Your task to perform on an android device: turn pop-ups off in chrome Image 0: 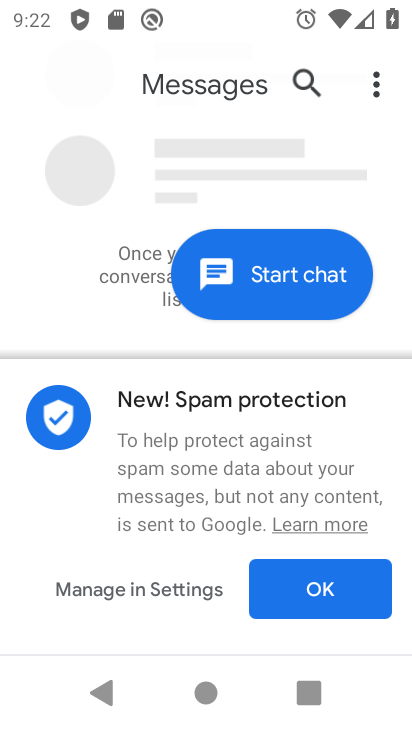
Step 0: press home button
Your task to perform on an android device: turn pop-ups off in chrome Image 1: 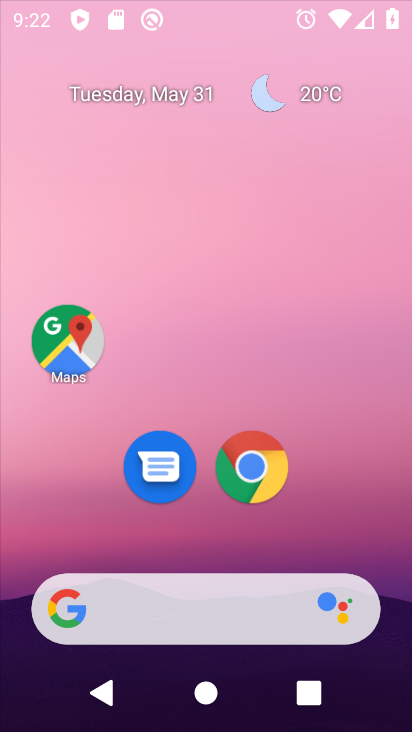
Step 1: drag from (206, 589) to (224, 61)
Your task to perform on an android device: turn pop-ups off in chrome Image 2: 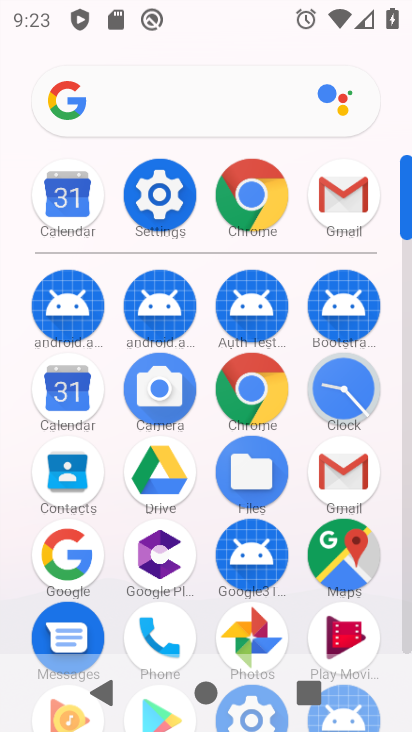
Step 2: click (248, 194)
Your task to perform on an android device: turn pop-ups off in chrome Image 3: 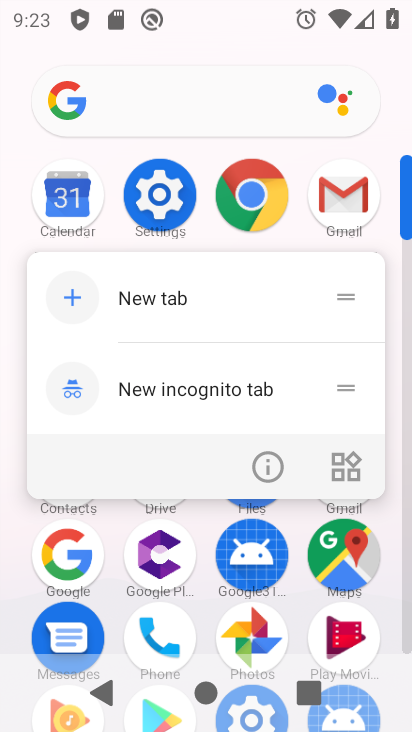
Step 3: click (266, 458)
Your task to perform on an android device: turn pop-ups off in chrome Image 4: 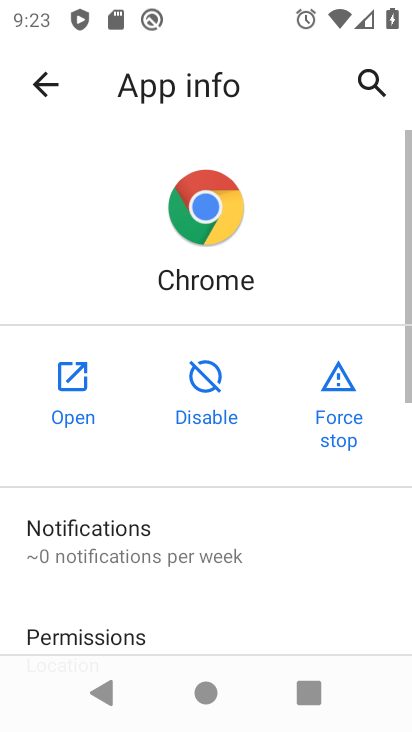
Step 4: click (77, 386)
Your task to perform on an android device: turn pop-ups off in chrome Image 5: 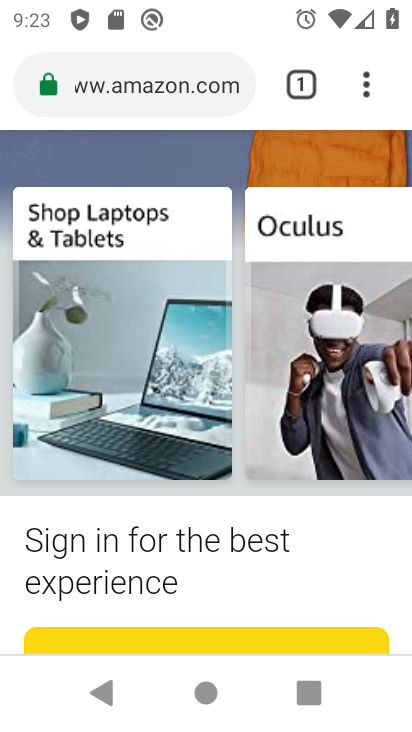
Step 5: drag from (261, 576) to (236, 283)
Your task to perform on an android device: turn pop-ups off in chrome Image 6: 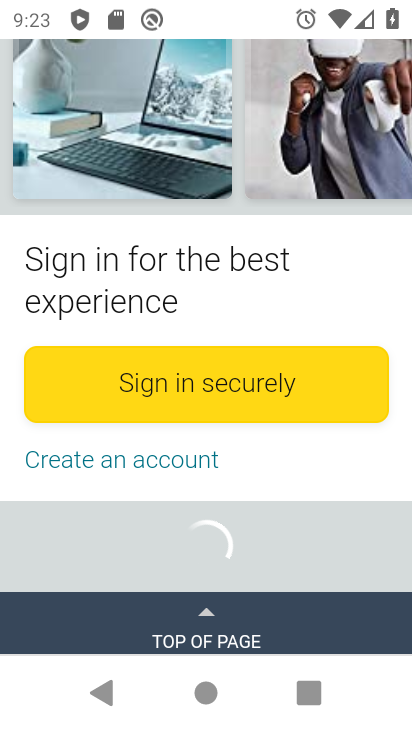
Step 6: drag from (243, 220) to (276, 527)
Your task to perform on an android device: turn pop-ups off in chrome Image 7: 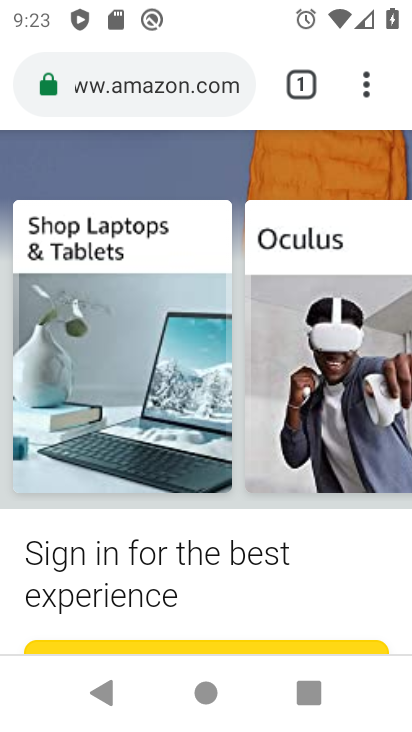
Step 7: drag from (365, 92) to (126, 527)
Your task to perform on an android device: turn pop-ups off in chrome Image 8: 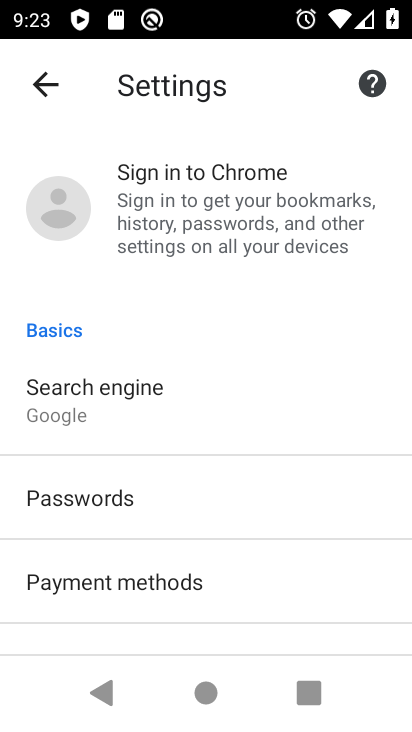
Step 8: drag from (210, 546) to (266, 17)
Your task to perform on an android device: turn pop-ups off in chrome Image 9: 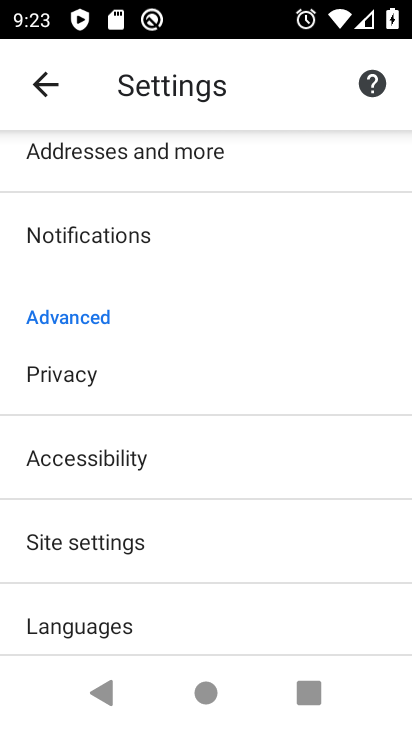
Step 9: click (143, 534)
Your task to perform on an android device: turn pop-ups off in chrome Image 10: 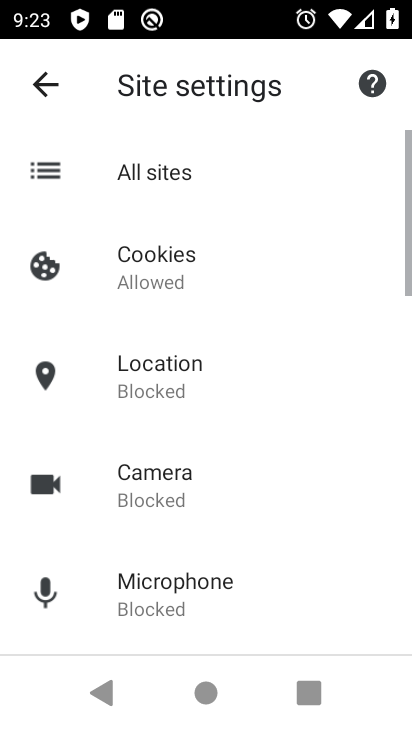
Step 10: drag from (146, 530) to (280, 183)
Your task to perform on an android device: turn pop-ups off in chrome Image 11: 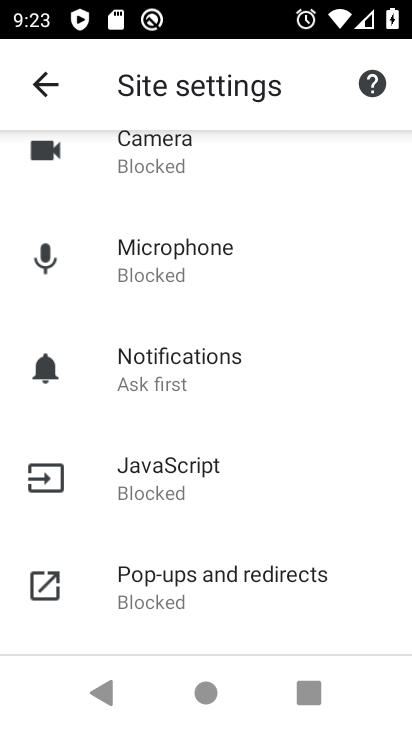
Step 11: click (165, 594)
Your task to perform on an android device: turn pop-ups off in chrome Image 12: 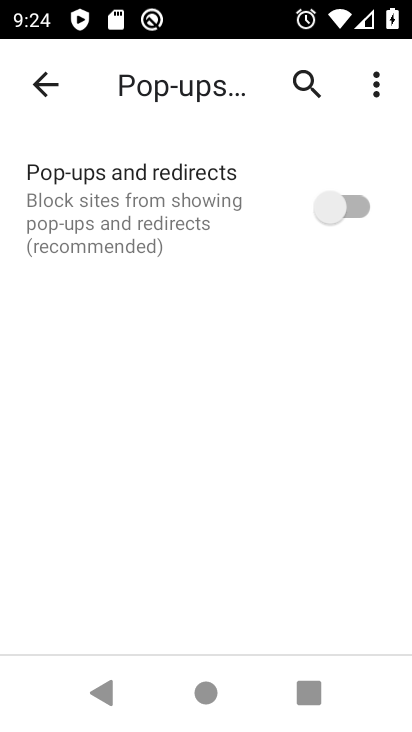
Step 12: task complete